Your task to perform on an android device: open a bookmark in the chrome app Image 0: 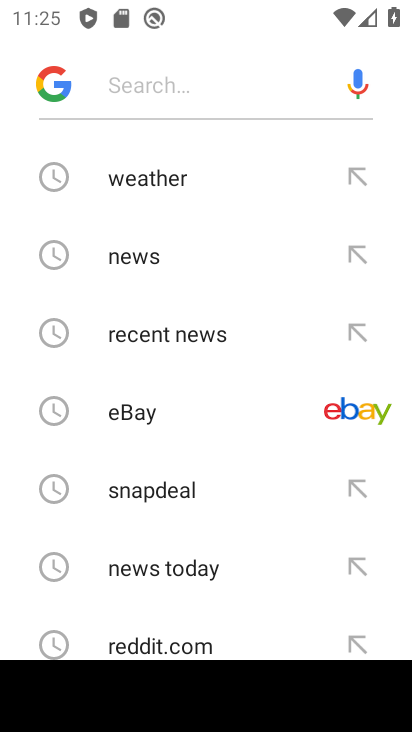
Step 0: press home button
Your task to perform on an android device: open a bookmark in the chrome app Image 1: 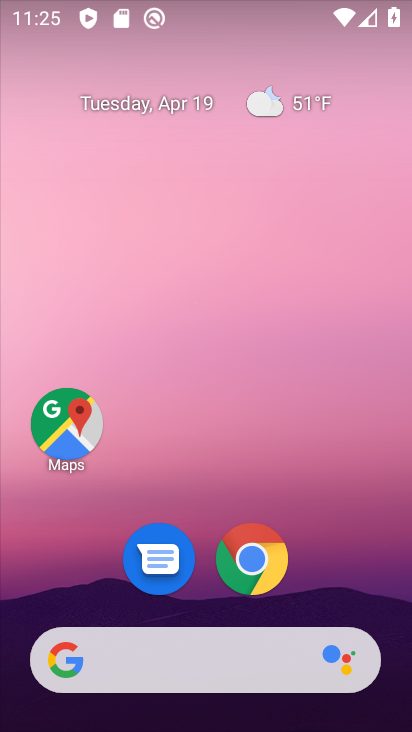
Step 1: click (260, 563)
Your task to perform on an android device: open a bookmark in the chrome app Image 2: 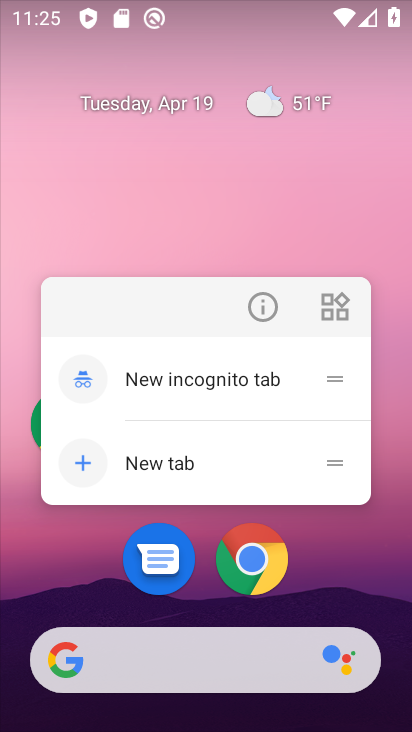
Step 2: click (259, 564)
Your task to perform on an android device: open a bookmark in the chrome app Image 3: 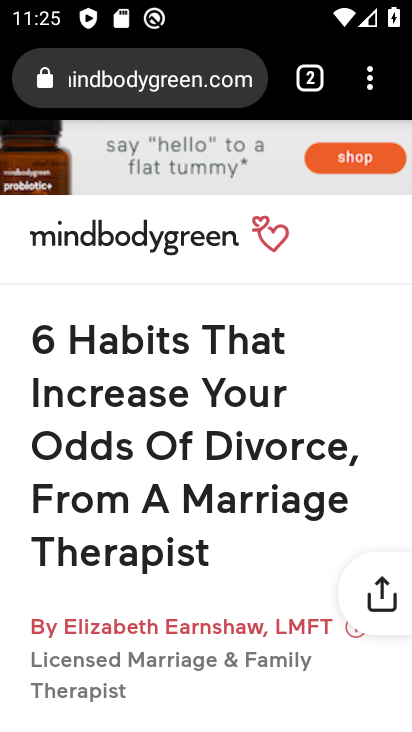
Step 3: click (369, 71)
Your task to perform on an android device: open a bookmark in the chrome app Image 4: 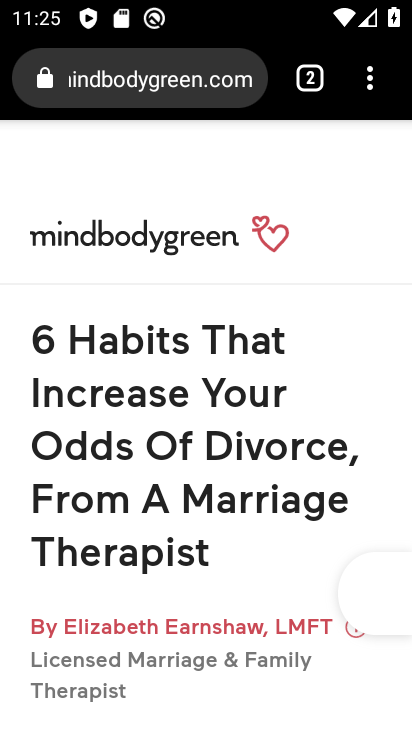
Step 4: click (364, 78)
Your task to perform on an android device: open a bookmark in the chrome app Image 5: 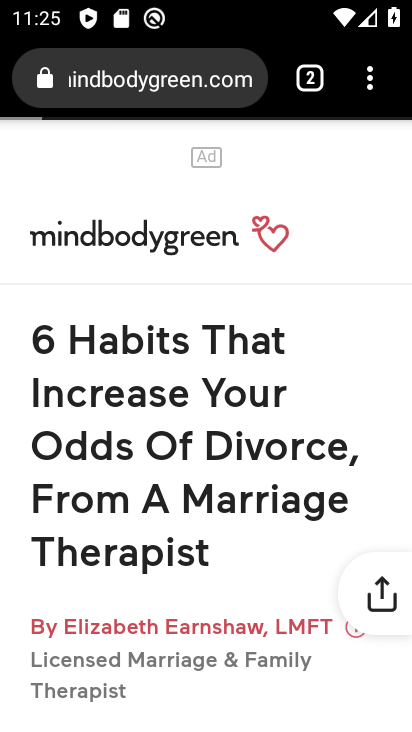
Step 5: click (364, 78)
Your task to perform on an android device: open a bookmark in the chrome app Image 6: 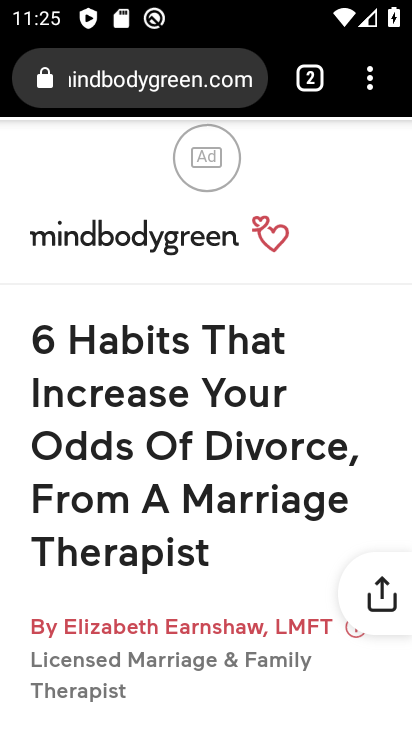
Step 6: drag from (364, 78) to (114, 299)
Your task to perform on an android device: open a bookmark in the chrome app Image 7: 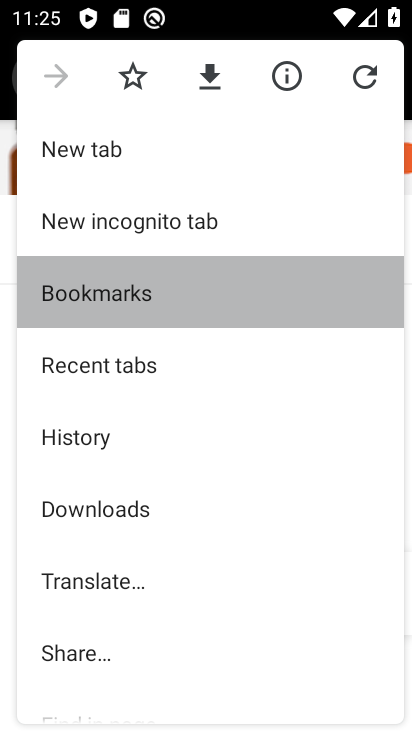
Step 7: click (127, 280)
Your task to perform on an android device: open a bookmark in the chrome app Image 8: 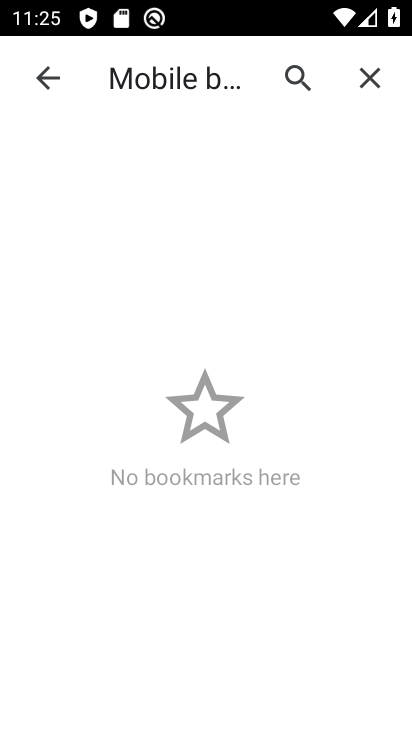
Step 8: click (118, 278)
Your task to perform on an android device: open a bookmark in the chrome app Image 9: 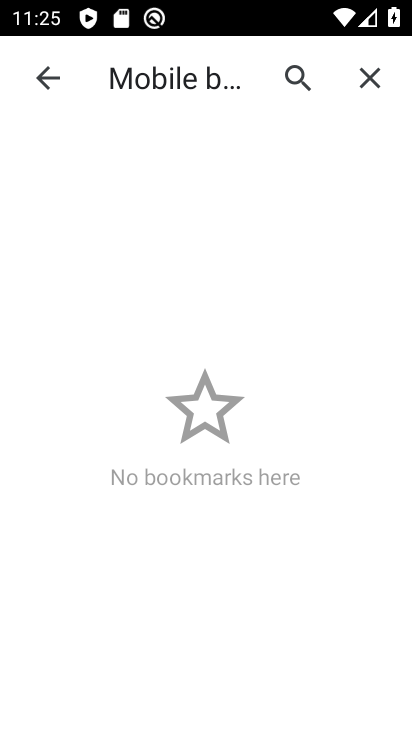
Step 9: click (370, 81)
Your task to perform on an android device: open a bookmark in the chrome app Image 10: 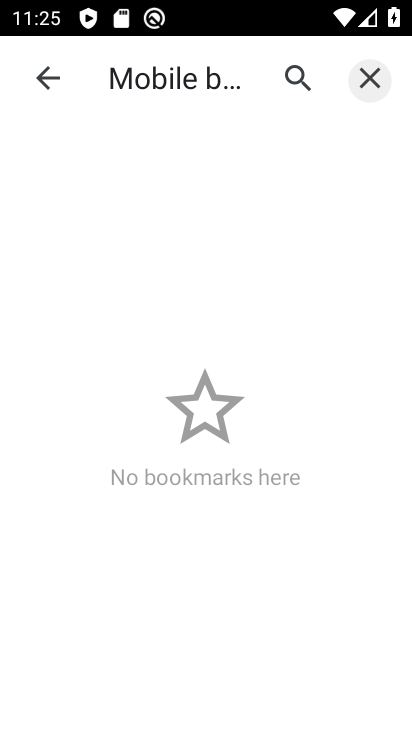
Step 10: click (370, 81)
Your task to perform on an android device: open a bookmark in the chrome app Image 11: 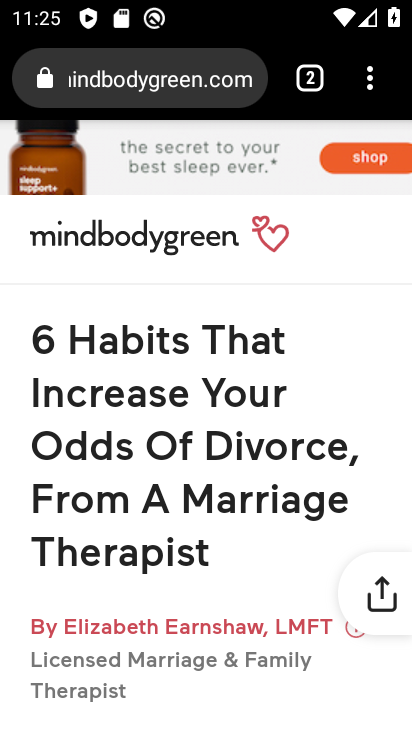
Step 11: click (362, 68)
Your task to perform on an android device: open a bookmark in the chrome app Image 12: 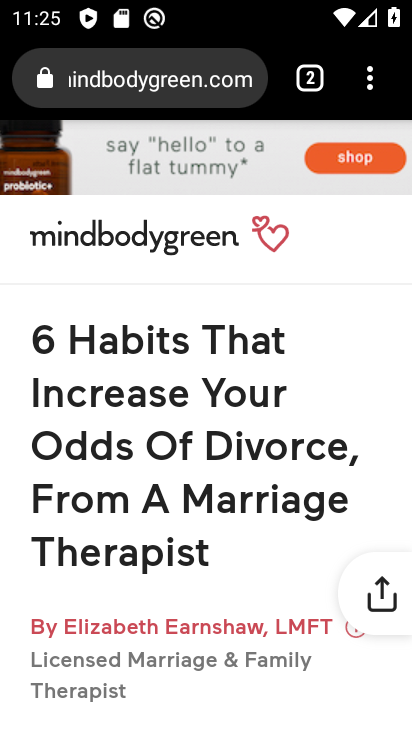
Step 12: drag from (369, 70) to (86, 284)
Your task to perform on an android device: open a bookmark in the chrome app Image 13: 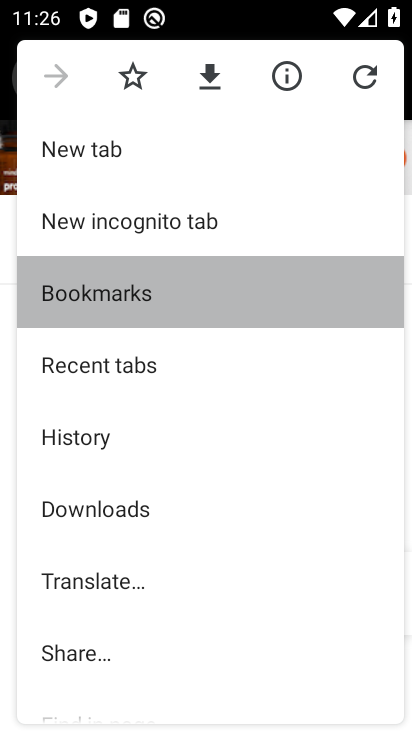
Step 13: click (87, 285)
Your task to perform on an android device: open a bookmark in the chrome app Image 14: 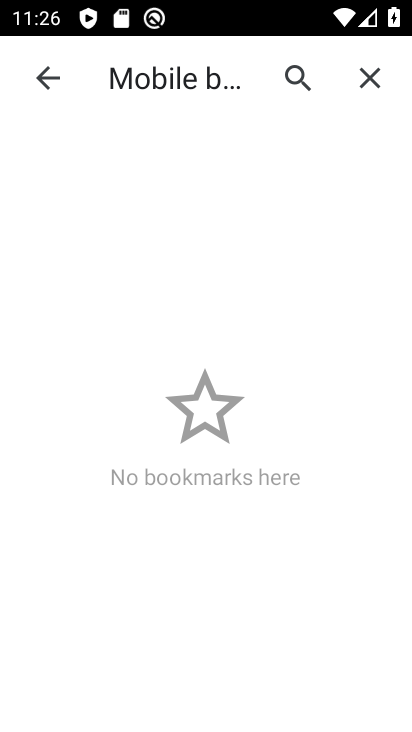
Step 14: task complete